Your task to perform on an android device: Search for usb-c on bestbuy.com, select the first entry, and add it to the cart. Image 0: 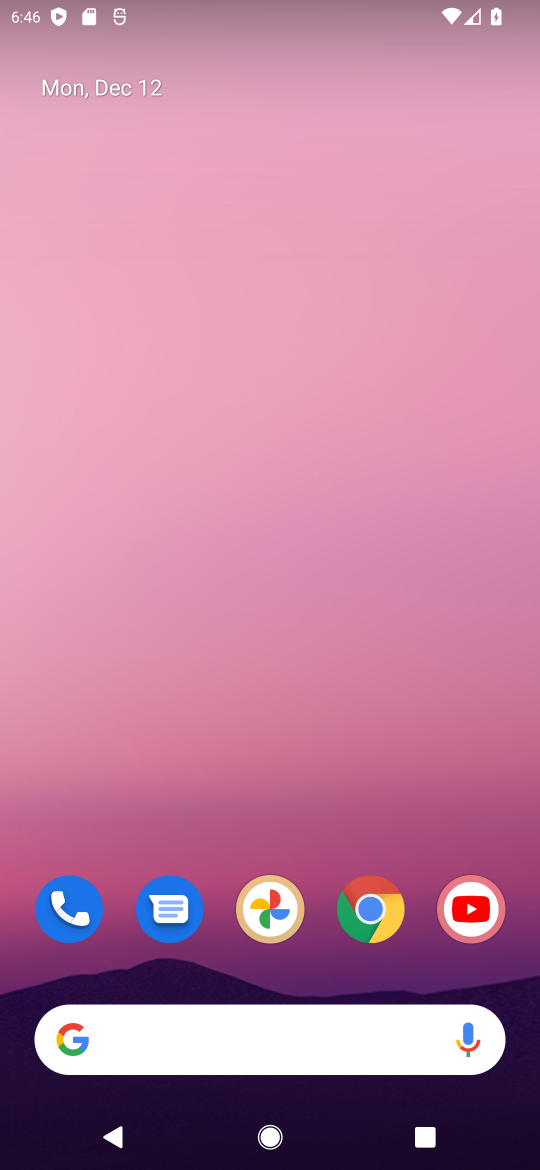
Step 0: click (388, 911)
Your task to perform on an android device: Search for usb-c on bestbuy.com, select the first entry, and add it to the cart. Image 1: 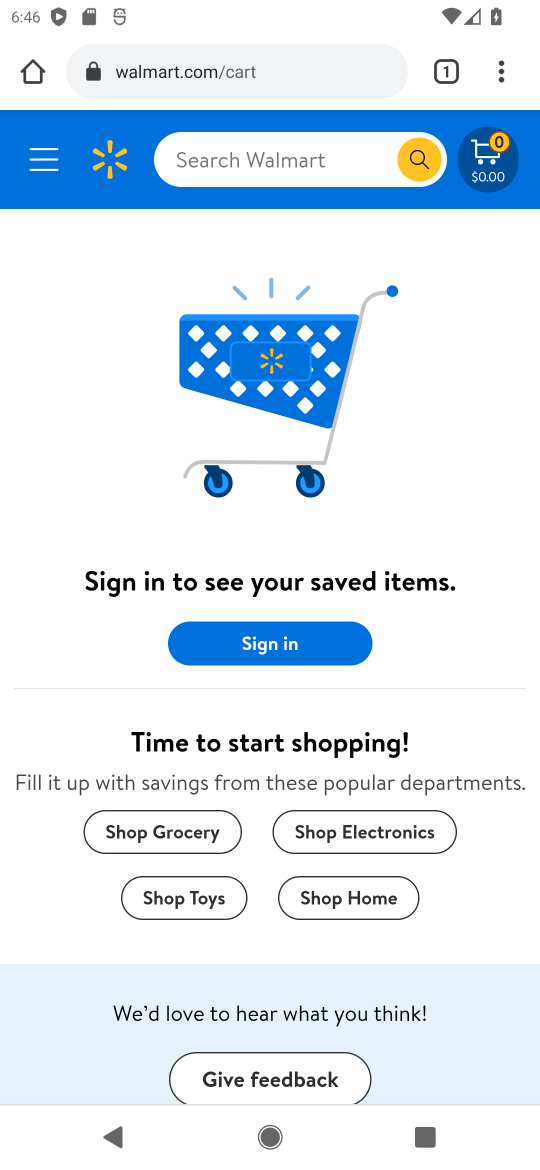
Step 1: click (176, 66)
Your task to perform on an android device: Search for usb-c on bestbuy.com, select the first entry, and add it to the cart. Image 2: 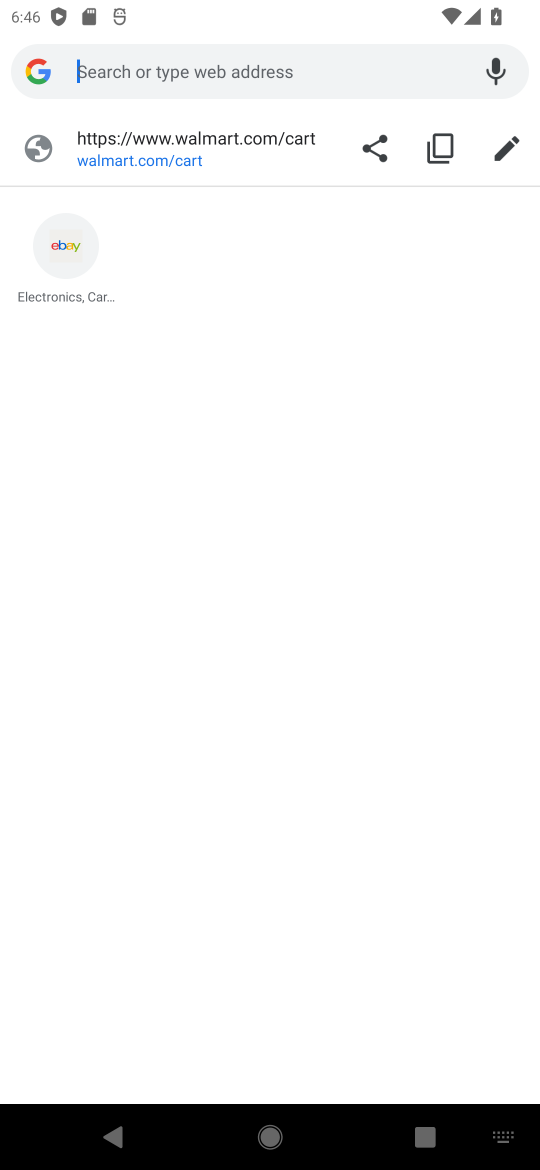
Step 2: type "bestbuy"
Your task to perform on an android device: Search for usb-c on bestbuy.com, select the first entry, and add it to the cart. Image 3: 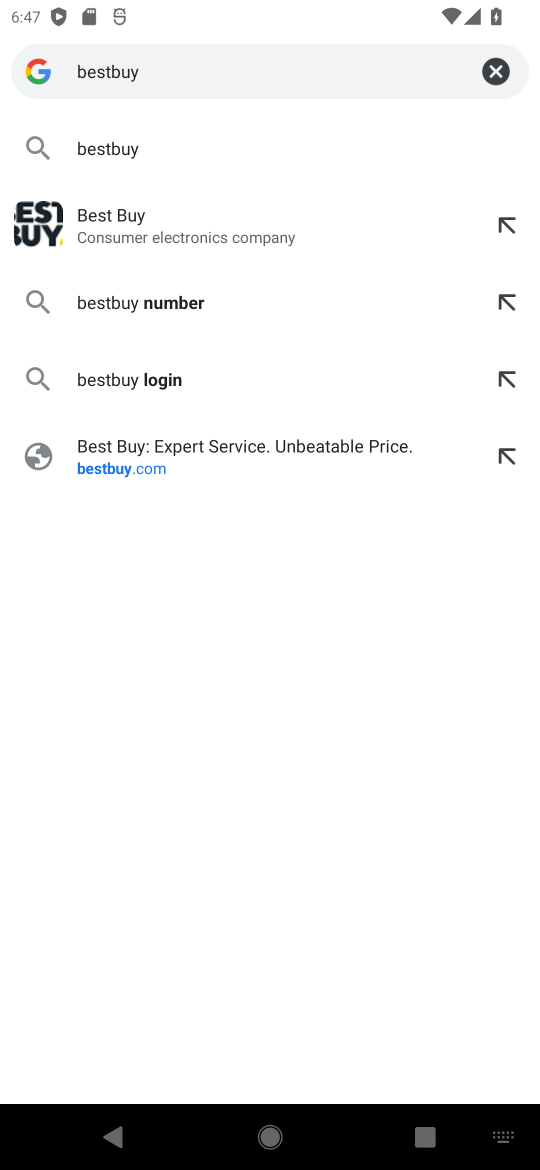
Step 3: click (172, 222)
Your task to perform on an android device: Search for usb-c on bestbuy.com, select the first entry, and add it to the cart. Image 4: 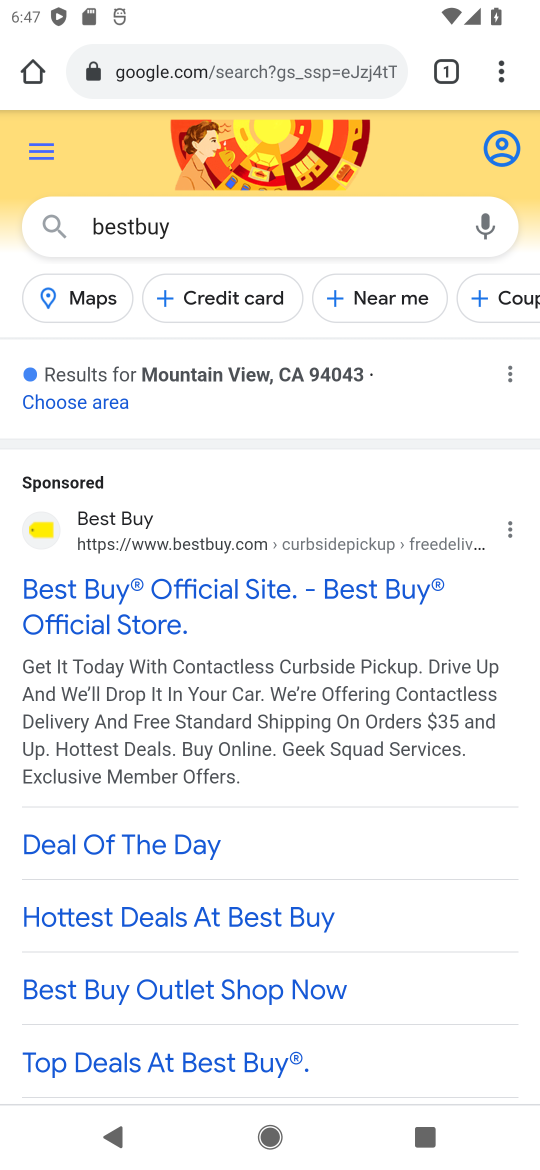
Step 4: click (78, 606)
Your task to perform on an android device: Search for usb-c on bestbuy.com, select the first entry, and add it to the cart. Image 5: 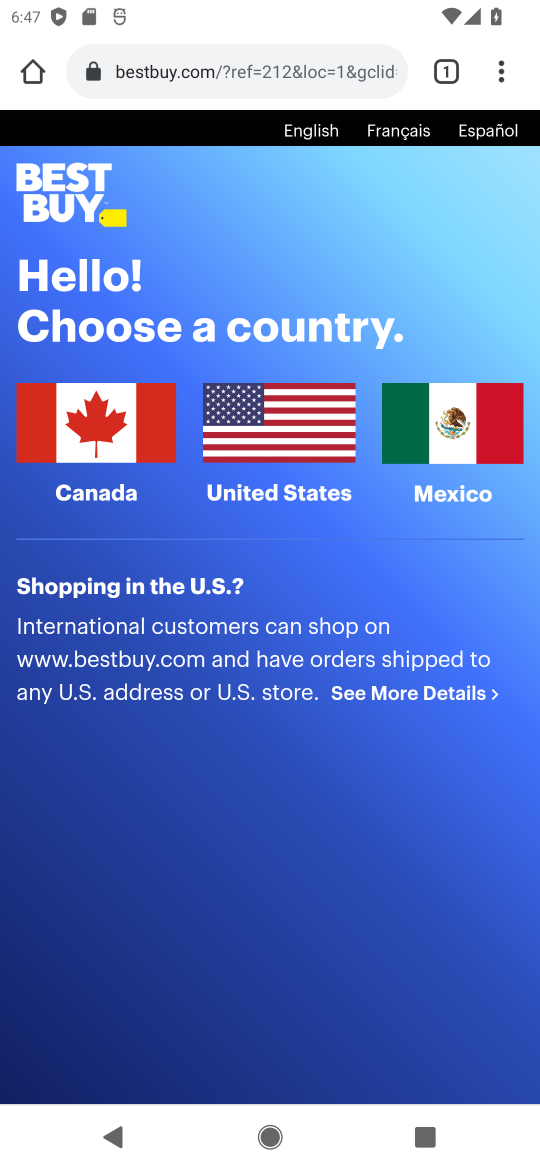
Step 5: click (261, 426)
Your task to perform on an android device: Search for usb-c on bestbuy.com, select the first entry, and add it to the cart. Image 6: 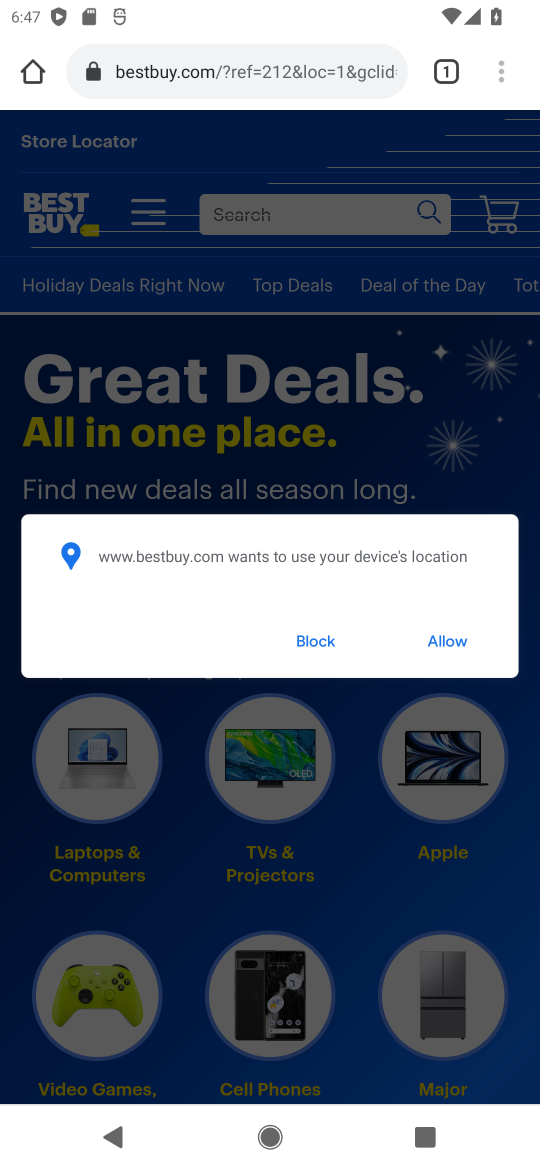
Step 6: click (442, 649)
Your task to perform on an android device: Search for usb-c on bestbuy.com, select the first entry, and add it to the cart. Image 7: 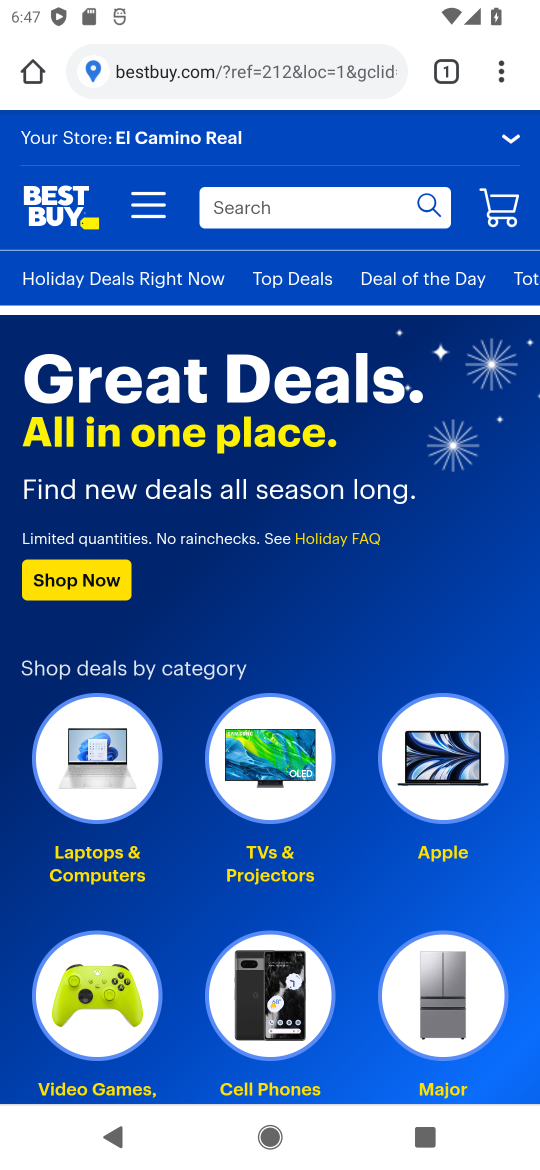
Step 7: click (308, 206)
Your task to perform on an android device: Search for usb-c on bestbuy.com, select the first entry, and add it to the cart. Image 8: 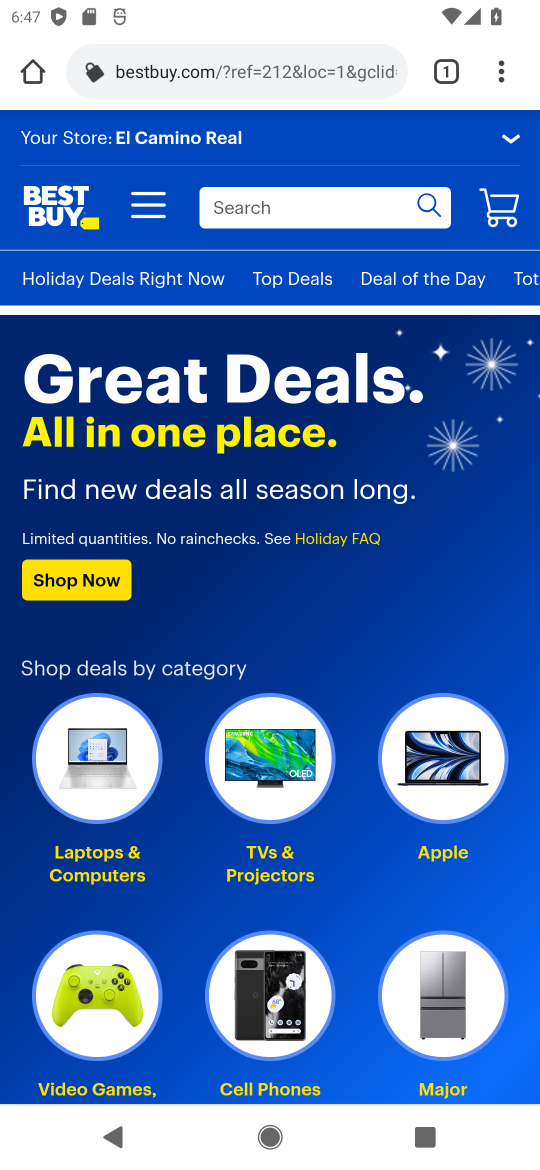
Step 8: click (308, 206)
Your task to perform on an android device: Search for usb-c on bestbuy.com, select the first entry, and add it to the cart. Image 9: 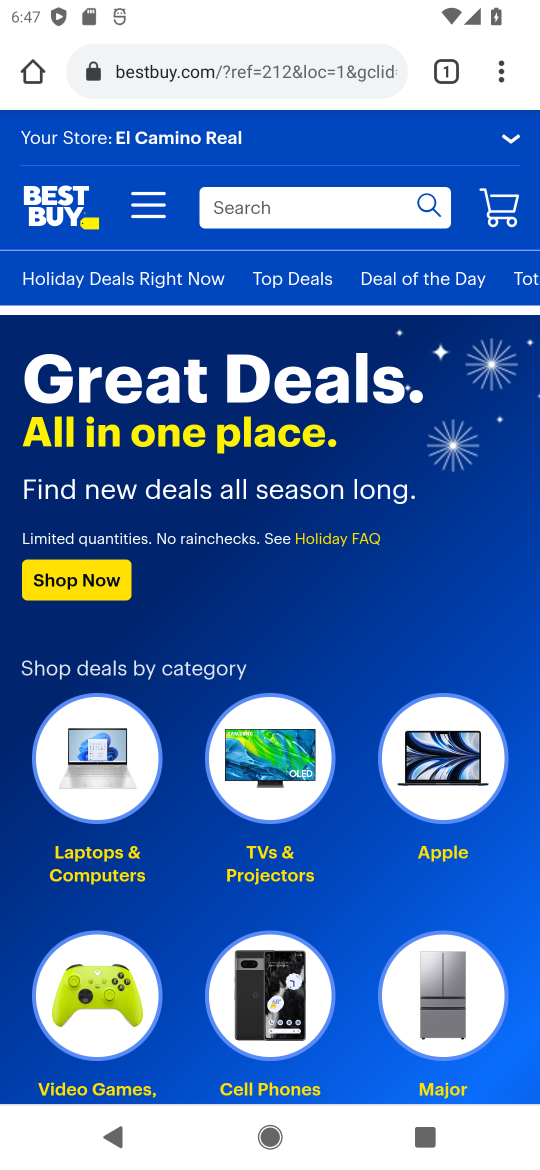
Step 9: click (256, 213)
Your task to perform on an android device: Search for usb-c on bestbuy.com, select the first entry, and add it to the cart. Image 10: 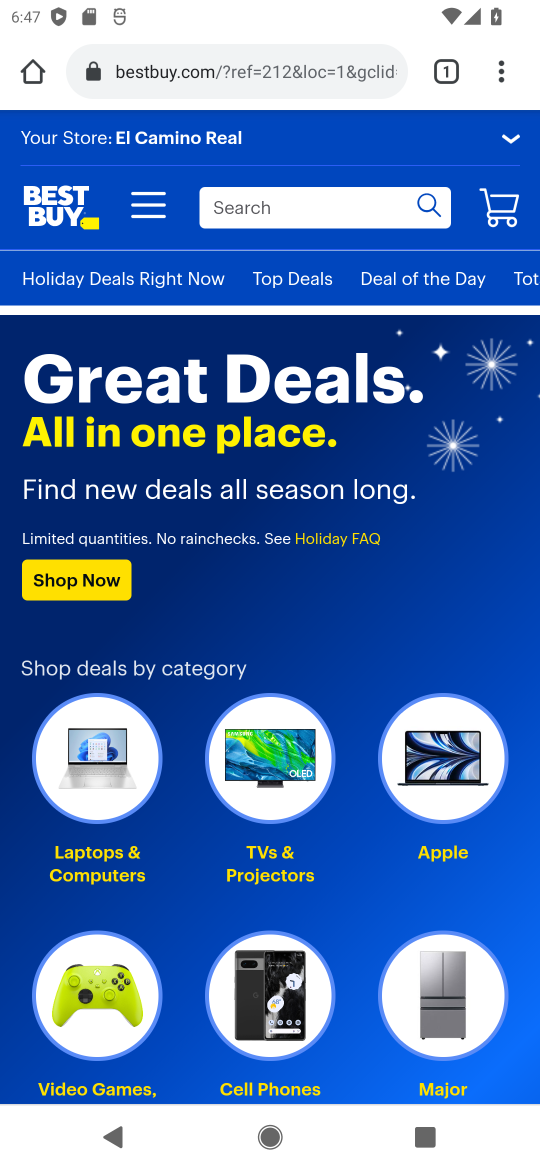
Step 10: click (256, 213)
Your task to perform on an android device: Search for usb-c on bestbuy.com, select the first entry, and add it to the cart. Image 11: 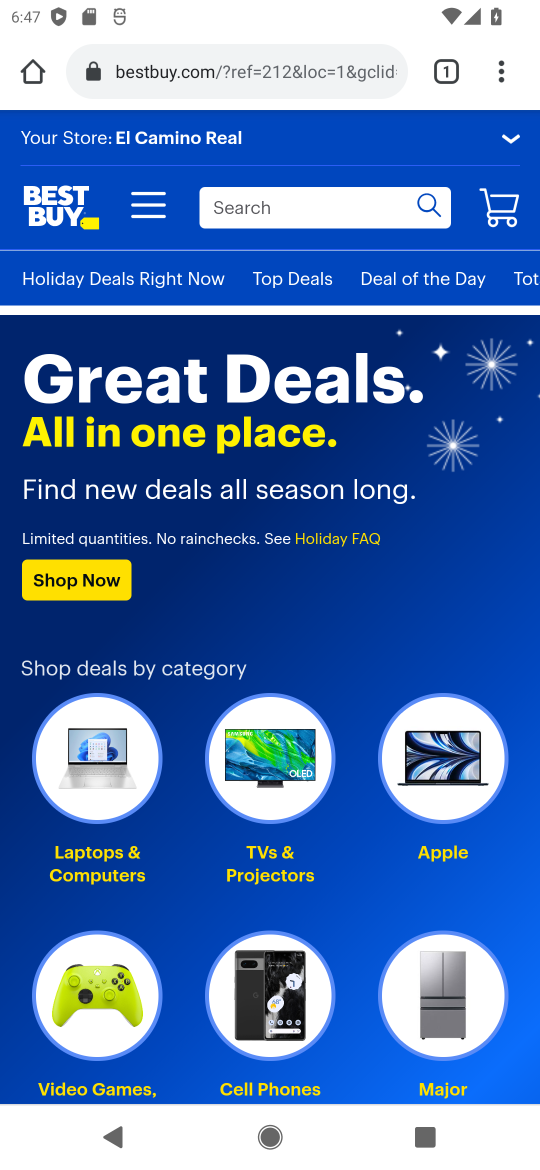
Step 11: click (259, 212)
Your task to perform on an android device: Search for usb-c on bestbuy.com, select the first entry, and add it to the cart. Image 12: 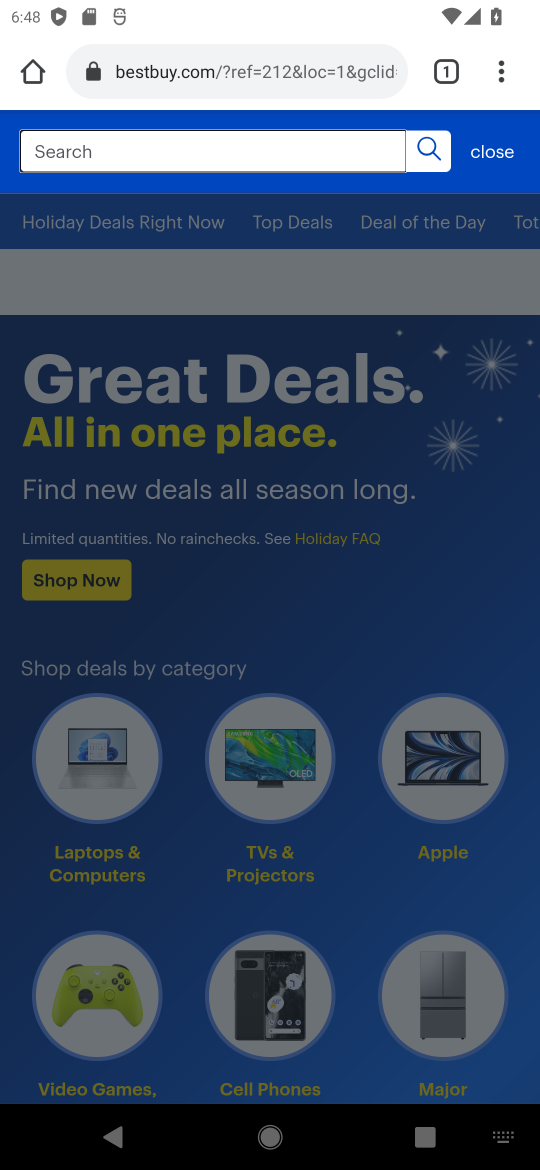
Step 12: type "usb-c "
Your task to perform on an android device: Search for usb-c on bestbuy.com, select the first entry, and add it to the cart. Image 13: 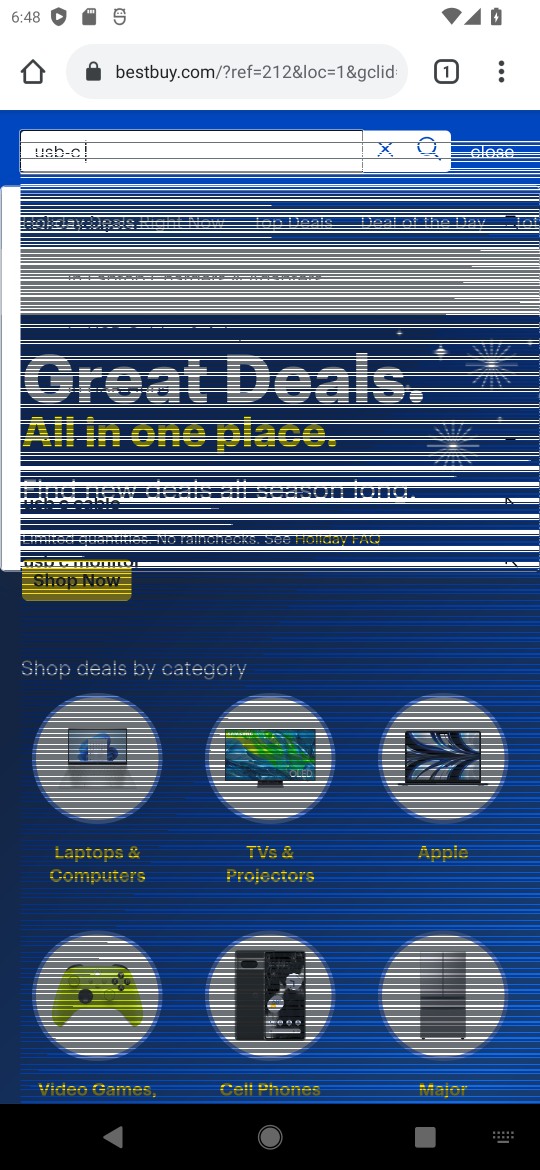
Step 13: click (430, 140)
Your task to perform on an android device: Search for usb-c on bestbuy.com, select the first entry, and add it to the cart. Image 14: 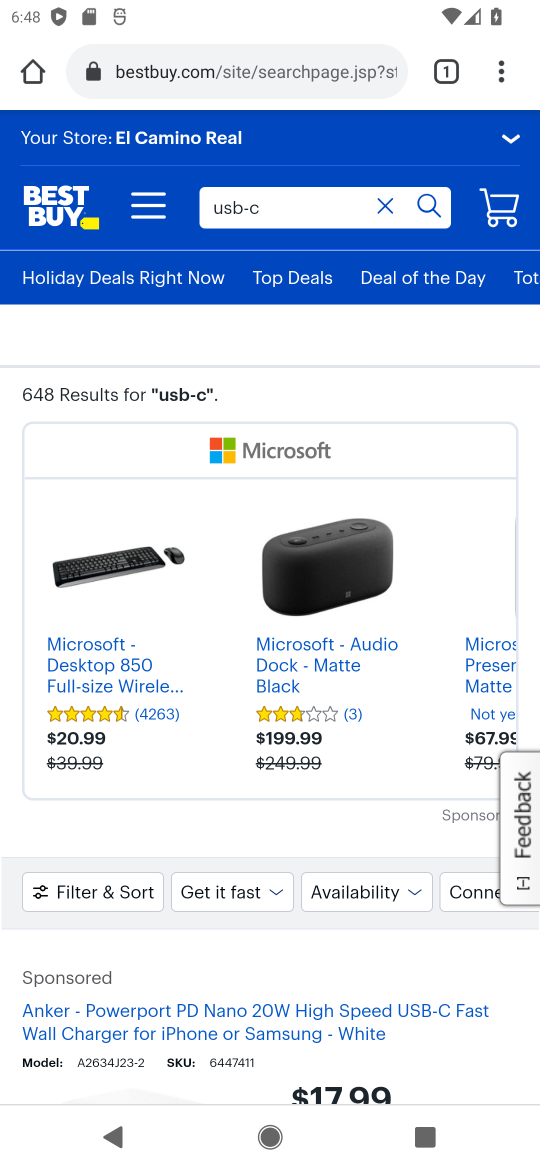
Step 14: drag from (197, 951) to (160, 266)
Your task to perform on an android device: Search for usb-c on bestbuy.com, select the first entry, and add it to the cart. Image 15: 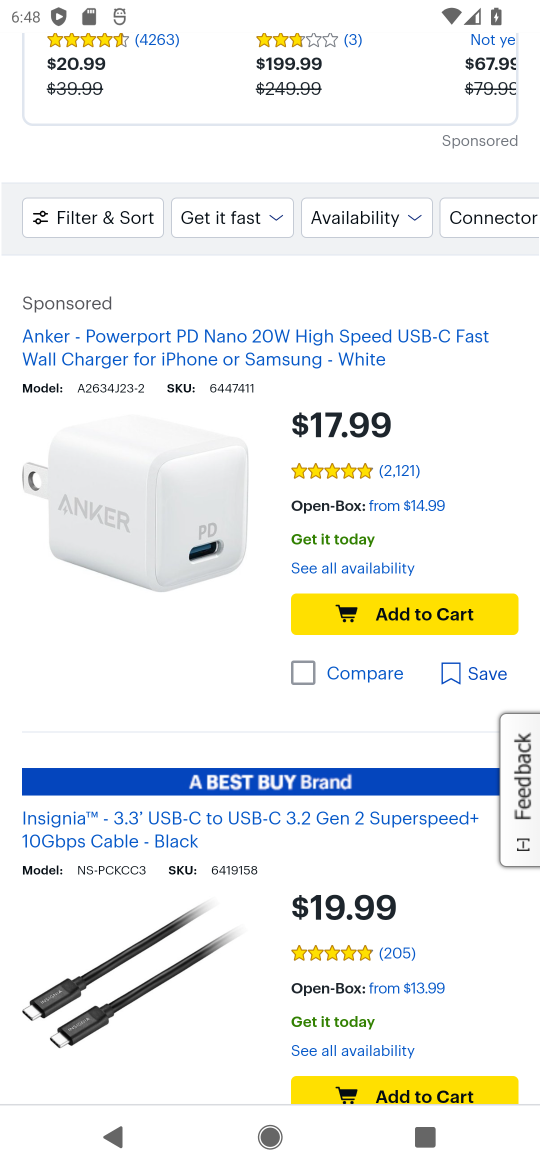
Step 15: click (391, 606)
Your task to perform on an android device: Search for usb-c on bestbuy.com, select the first entry, and add it to the cart. Image 16: 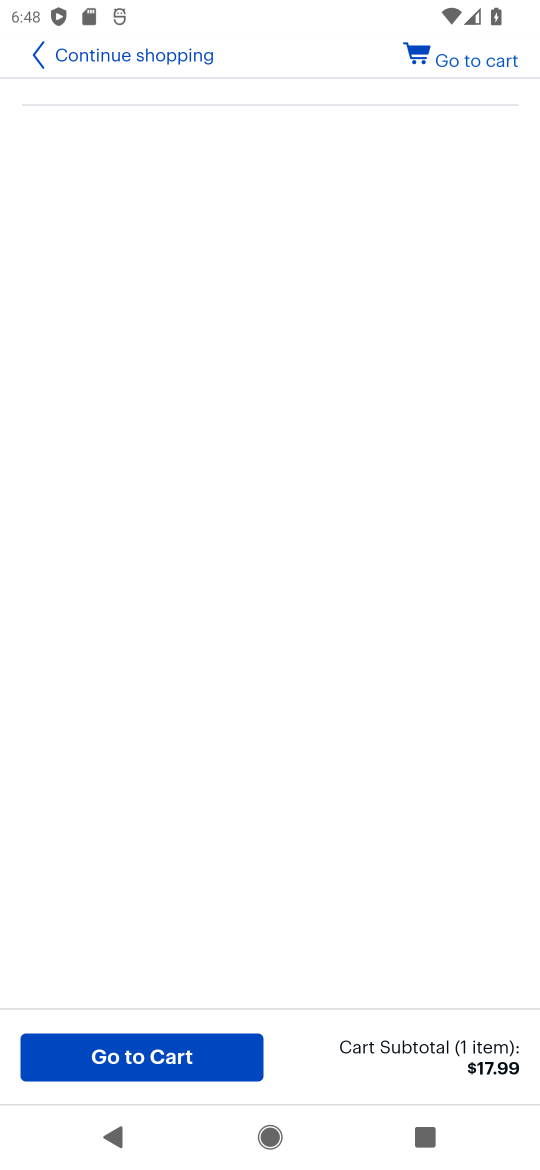
Step 16: task complete